Your task to perform on an android device: add a contact in the contacts app Image 0: 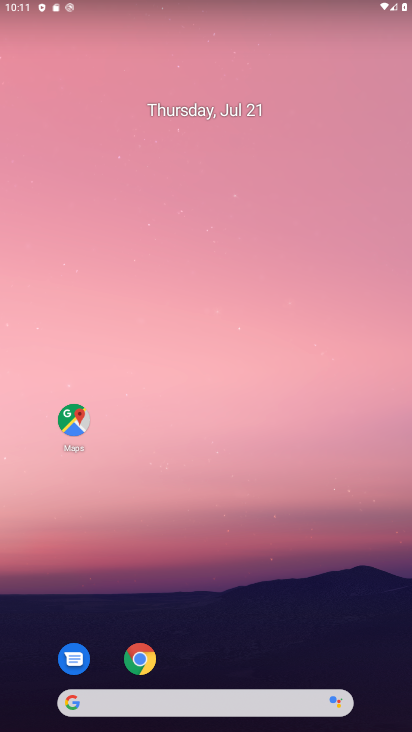
Step 0: drag from (213, 720) to (167, 116)
Your task to perform on an android device: add a contact in the contacts app Image 1: 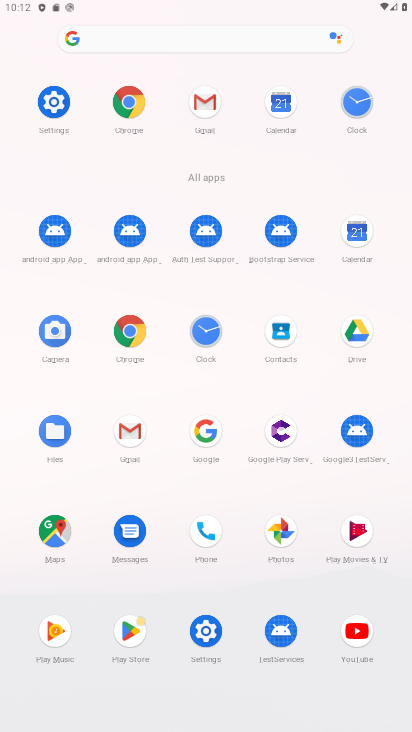
Step 1: click (282, 329)
Your task to perform on an android device: add a contact in the contacts app Image 2: 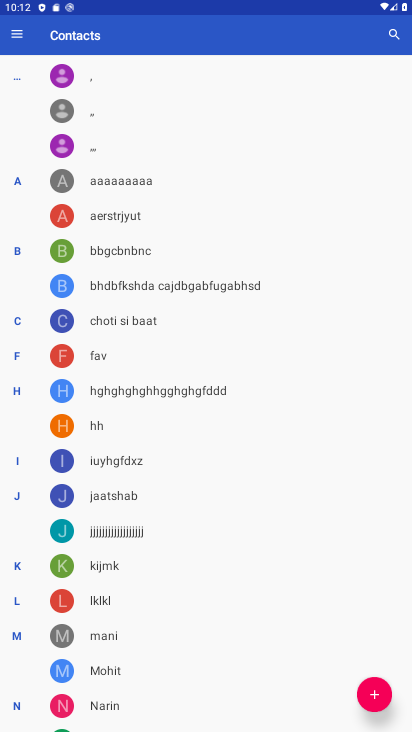
Step 2: click (372, 693)
Your task to perform on an android device: add a contact in the contacts app Image 3: 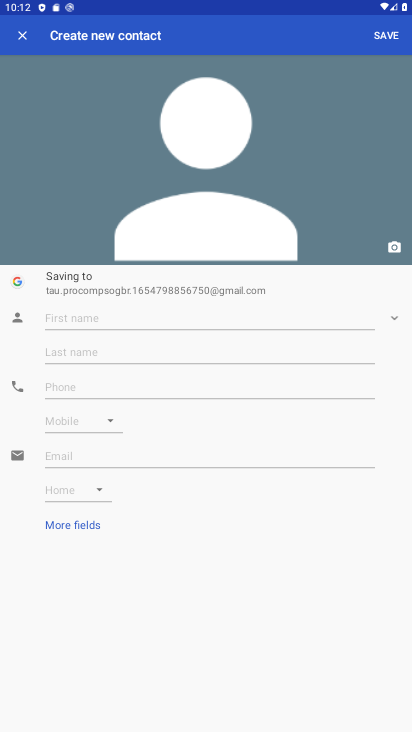
Step 3: click (54, 312)
Your task to perform on an android device: add a contact in the contacts app Image 4: 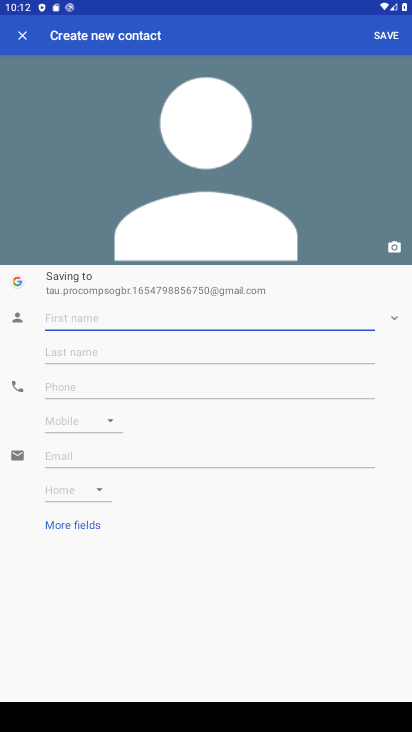
Step 4: type "hariharan"
Your task to perform on an android device: add a contact in the contacts app Image 5: 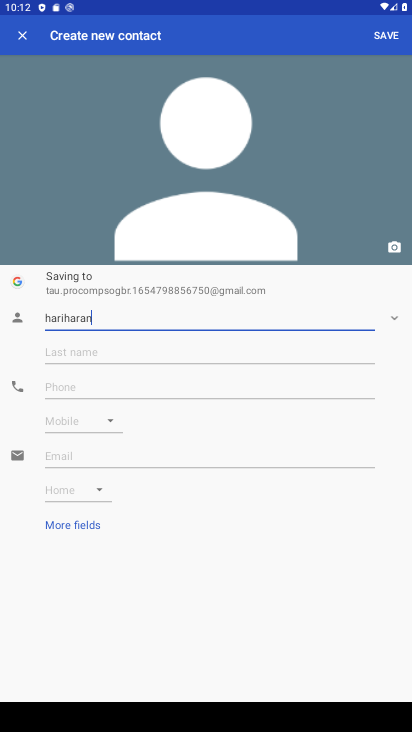
Step 5: click (112, 387)
Your task to perform on an android device: add a contact in the contacts app Image 6: 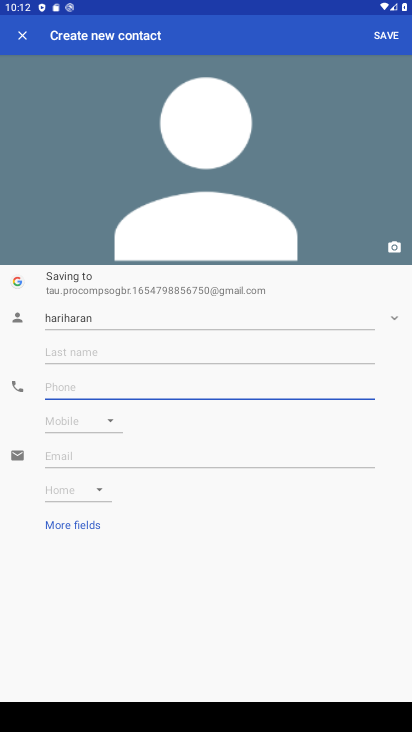
Step 6: type "878878787"
Your task to perform on an android device: add a contact in the contacts app Image 7: 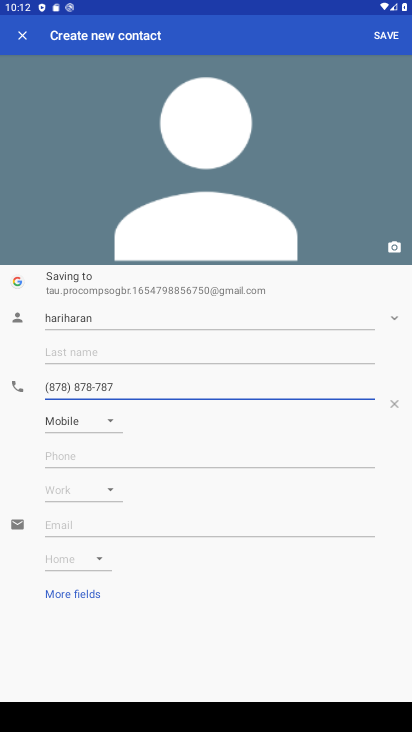
Step 7: click (385, 28)
Your task to perform on an android device: add a contact in the contacts app Image 8: 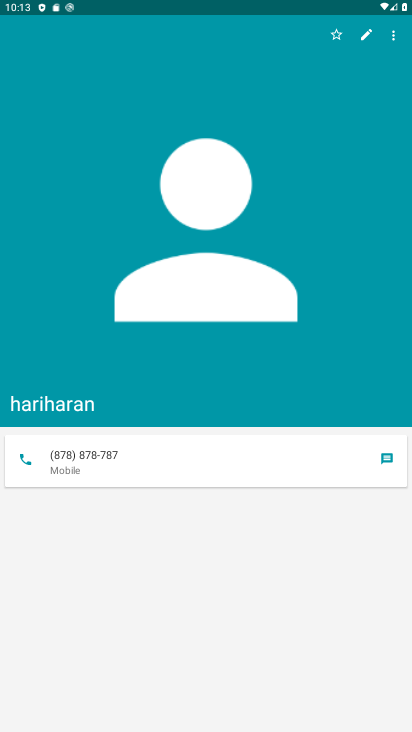
Step 8: task complete